Your task to perform on an android device: toggle javascript in the chrome app Image 0: 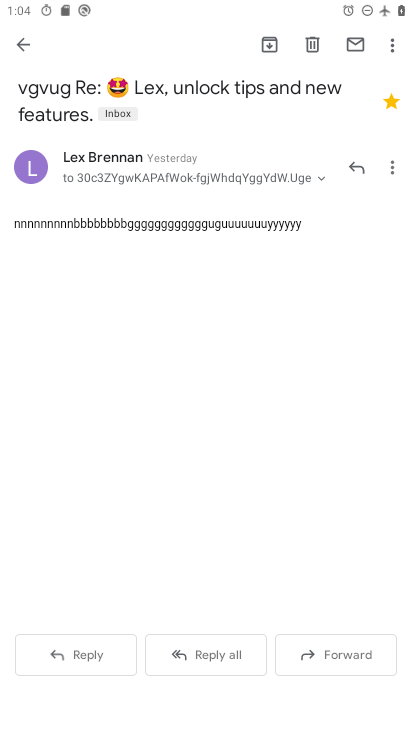
Step 0: press home button
Your task to perform on an android device: toggle javascript in the chrome app Image 1: 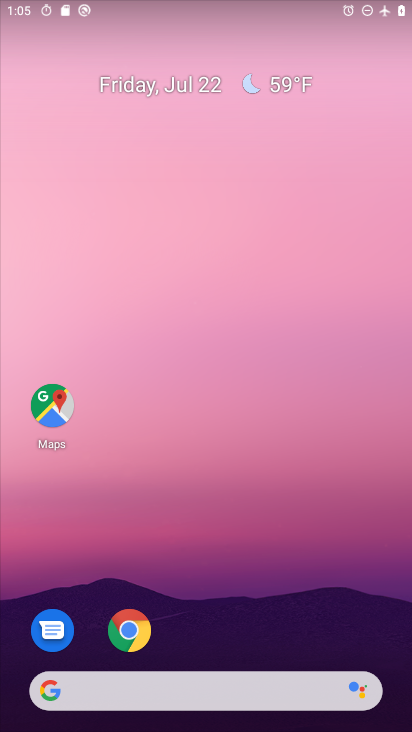
Step 1: drag from (200, 582) to (162, 4)
Your task to perform on an android device: toggle javascript in the chrome app Image 2: 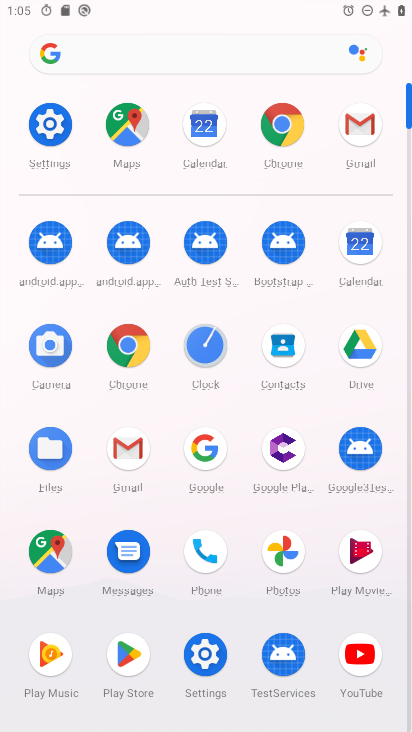
Step 2: click (284, 125)
Your task to perform on an android device: toggle javascript in the chrome app Image 3: 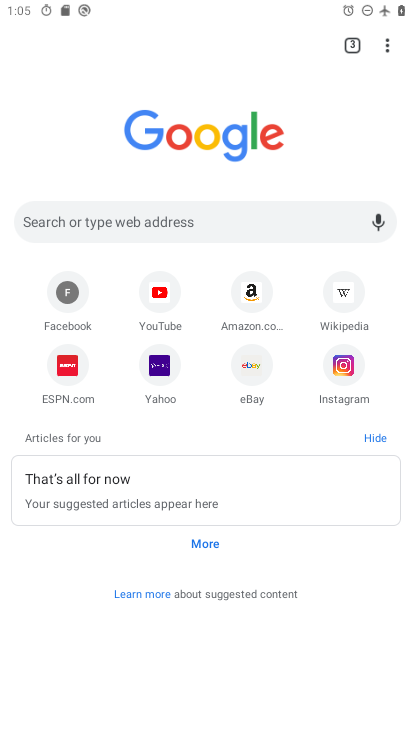
Step 3: drag from (393, 44) to (226, 442)
Your task to perform on an android device: toggle javascript in the chrome app Image 4: 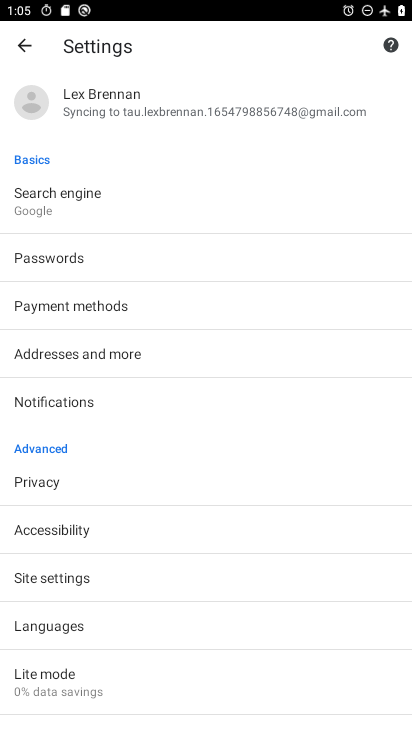
Step 4: click (46, 580)
Your task to perform on an android device: toggle javascript in the chrome app Image 5: 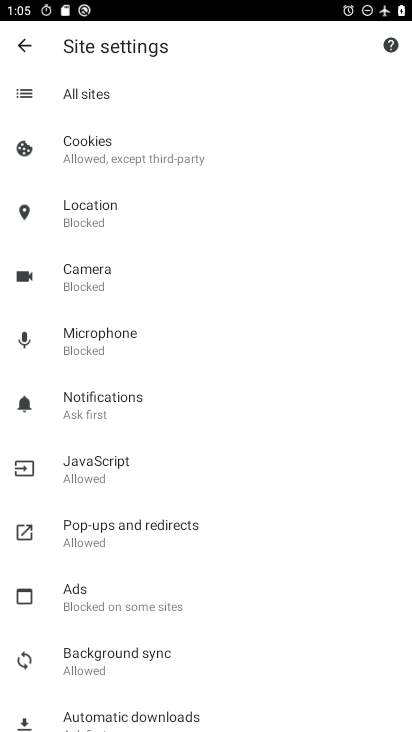
Step 5: click (89, 458)
Your task to perform on an android device: toggle javascript in the chrome app Image 6: 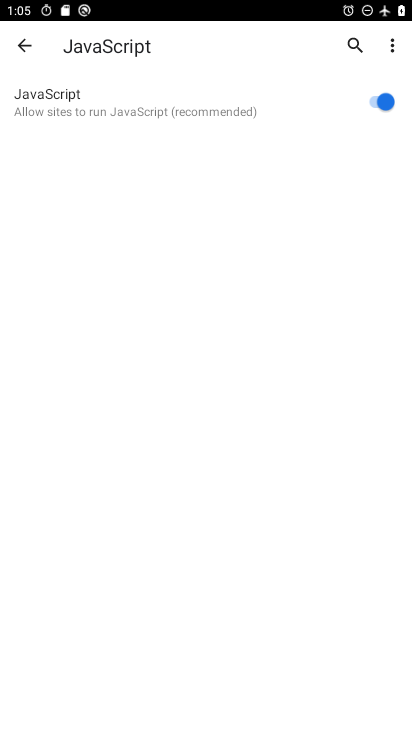
Step 6: click (381, 103)
Your task to perform on an android device: toggle javascript in the chrome app Image 7: 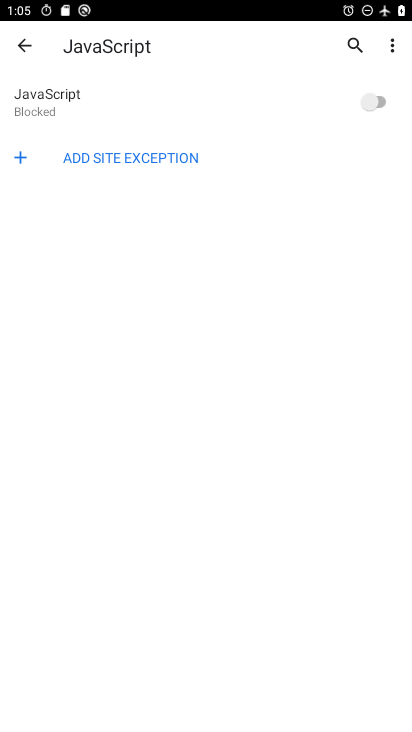
Step 7: task complete